Your task to perform on an android device: Set the phone to "Do not disturb". Image 0: 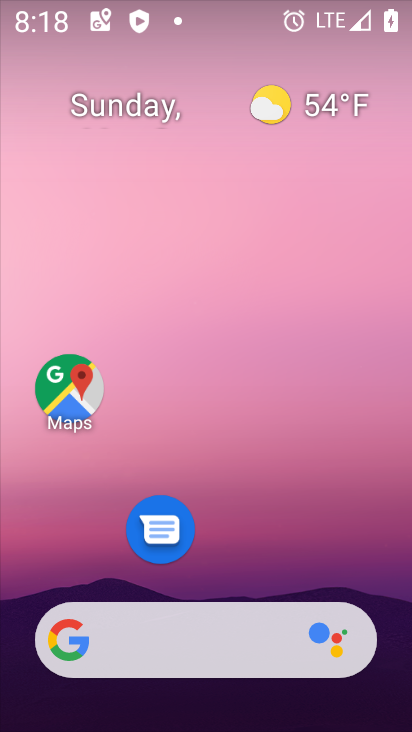
Step 0: drag from (229, 565) to (222, 44)
Your task to perform on an android device: Set the phone to "Do not disturb". Image 1: 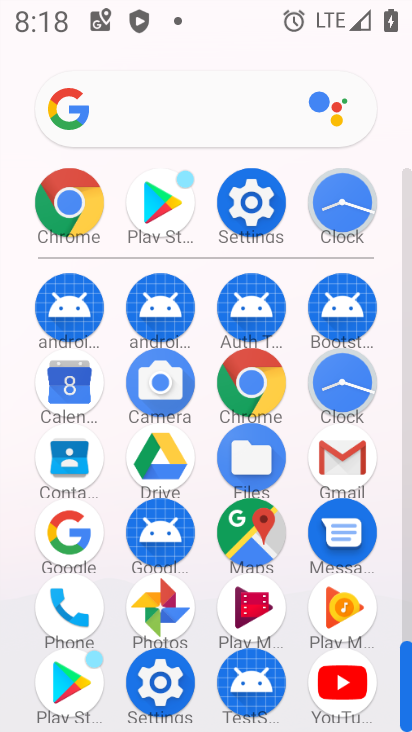
Step 1: click (238, 209)
Your task to perform on an android device: Set the phone to "Do not disturb". Image 2: 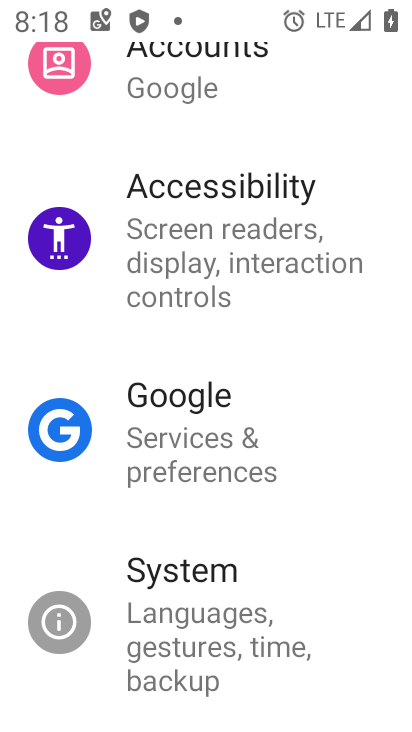
Step 2: drag from (223, 549) to (220, 297)
Your task to perform on an android device: Set the phone to "Do not disturb". Image 3: 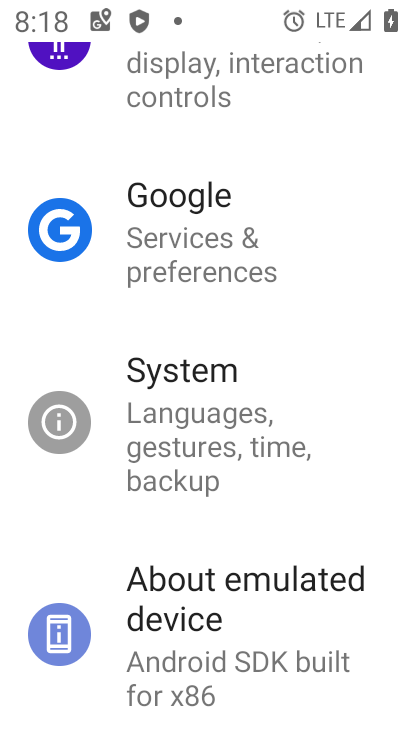
Step 3: drag from (212, 273) to (188, 704)
Your task to perform on an android device: Set the phone to "Do not disturb". Image 4: 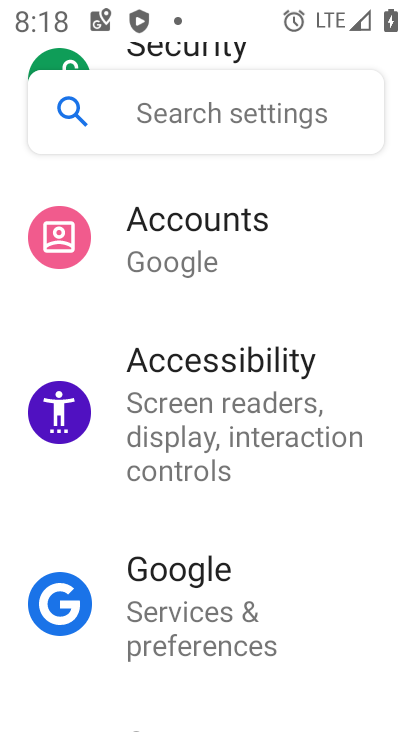
Step 4: drag from (214, 268) to (222, 575)
Your task to perform on an android device: Set the phone to "Do not disturb". Image 5: 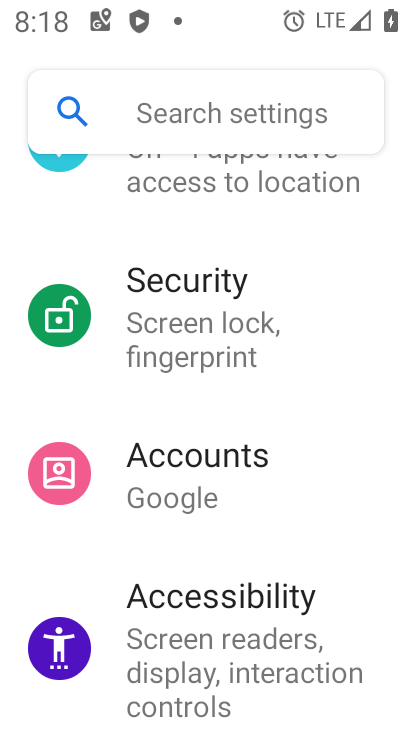
Step 5: drag from (261, 271) to (268, 667)
Your task to perform on an android device: Set the phone to "Do not disturb". Image 6: 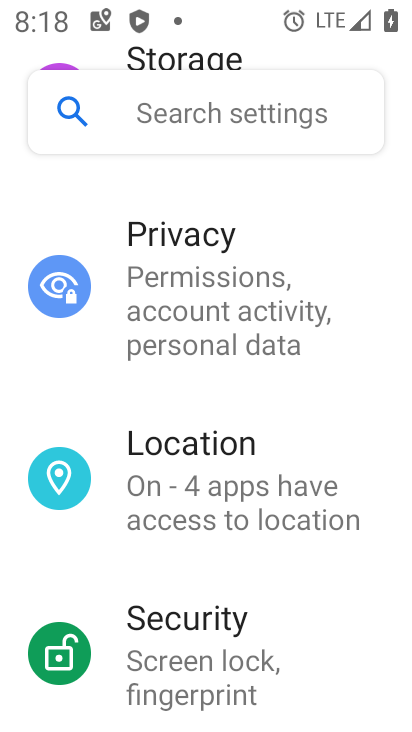
Step 6: drag from (242, 335) to (249, 616)
Your task to perform on an android device: Set the phone to "Do not disturb". Image 7: 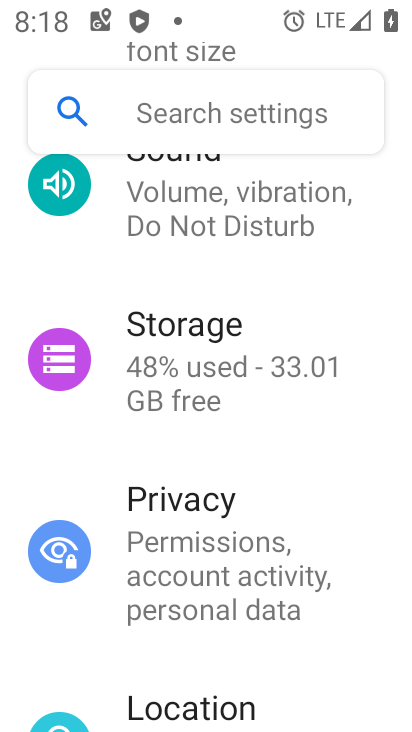
Step 7: drag from (205, 325) to (204, 545)
Your task to perform on an android device: Set the phone to "Do not disturb". Image 8: 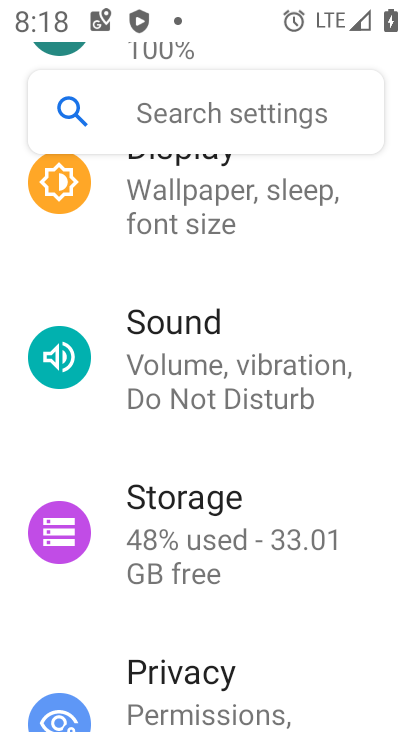
Step 8: click (163, 398)
Your task to perform on an android device: Set the phone to "Do not disturb". Image 9: 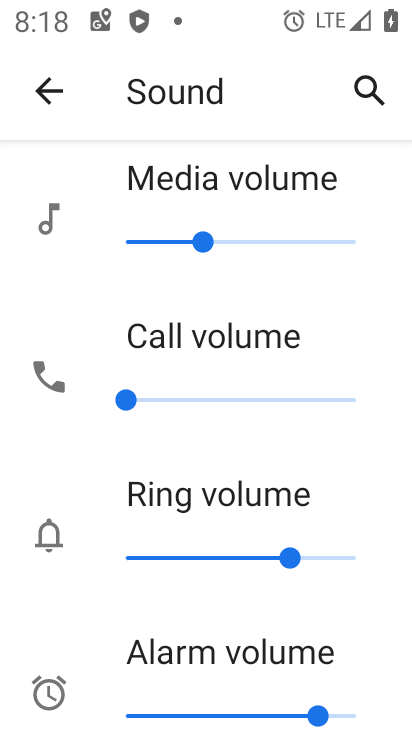
Step 9: drag from (187, 601) to (196, 299)
Your task to perform on an android device: Set the phone to "Do not disturb". Image 10: 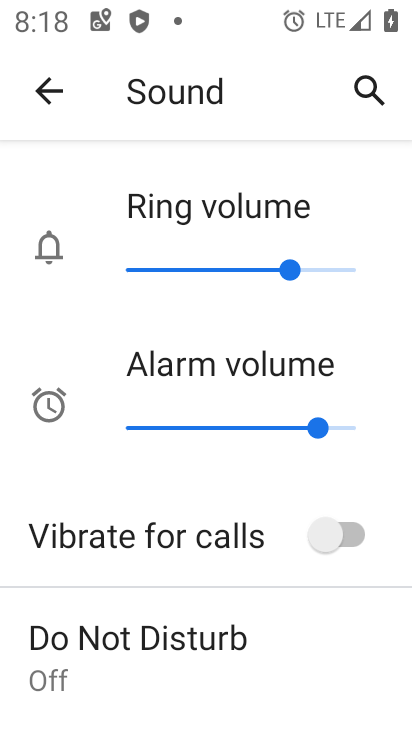
Step 10: click (155, 663)
Your task to perform on an android device: Set the phone to "Do not disturb". Image 11: 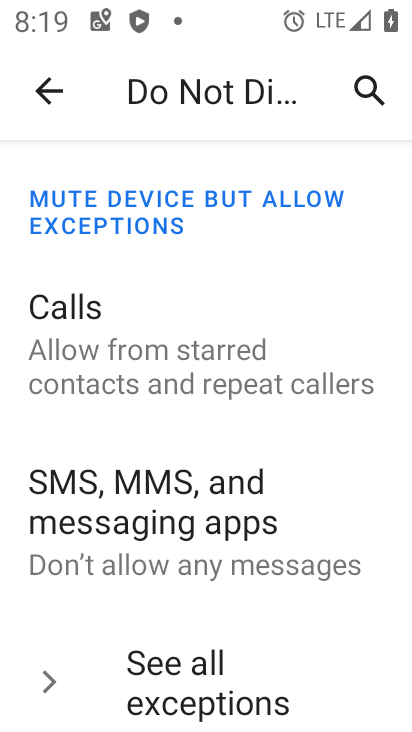
Step 11: drag from (120, 631) to (144, 331)
Your task to perform on an android device: Set the phone to "Do not disturb". Image 12: 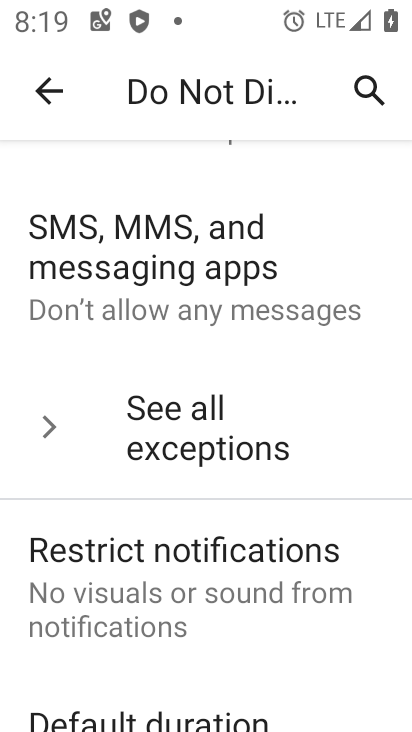
Step 12: drag from (138, 634) to (155, 214)
Your task to perform on an android device: Set the phone to "Do not disturb". Image 13: 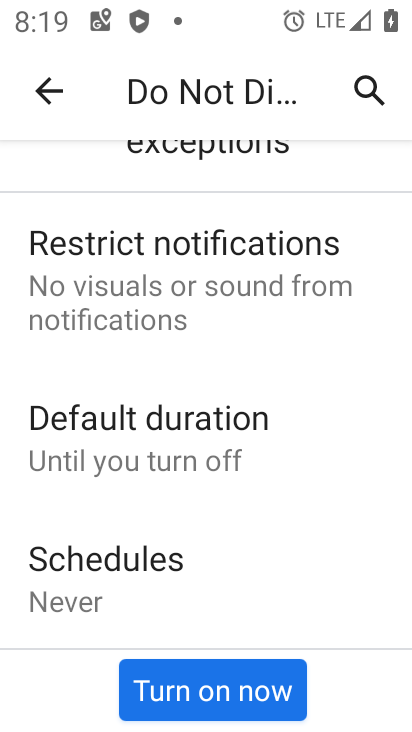
Step 13: click (180, 689)
Your task to perform on an android device: Set the phone to "Do not disturb". Image 14: 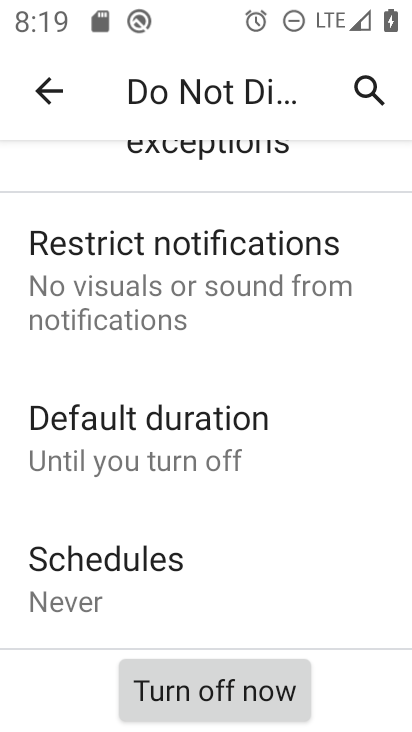
Step 14: task complete